Your task to perform on an android device: toggle notifications settings in the gmail app Image 0: 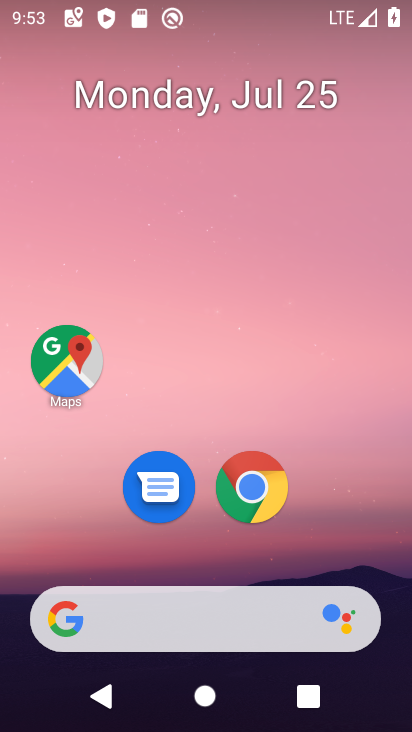
Step 0: drag from (194, 564) to (284, 3)
Your task to perform on an android device: toggle notifications settings in the gmail app Image 1: 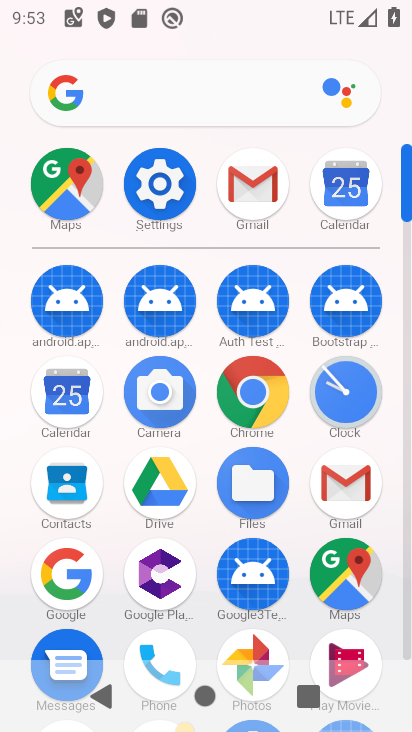
Step 1: click (243, 192)
Your task to perform on an android device: toggle notifications settings in the gmail app Image 2: 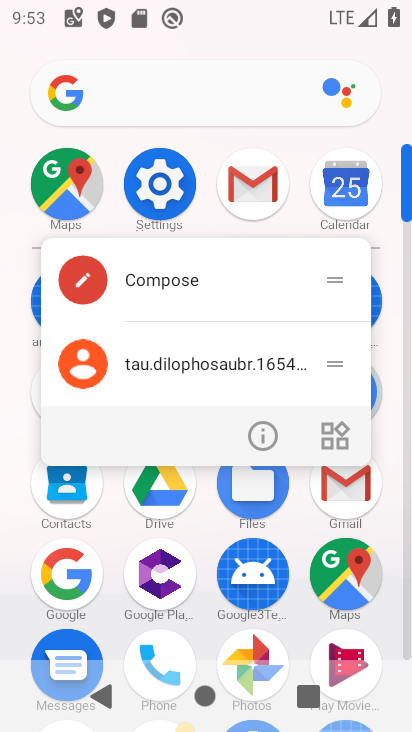
Step 2: click (260, 421)
Your task to perform on an android device: toggle notifications settings in the gmail app Image 3: 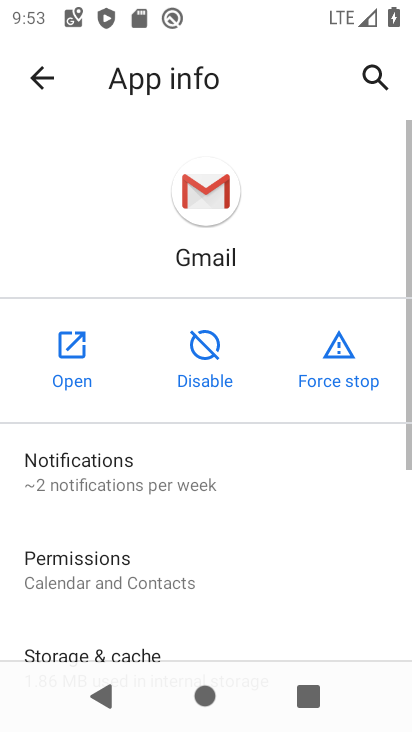
Step 3: click (176, 460)
Your task to perform on an android device: toggle notifications settings in the gmail app Image 4: 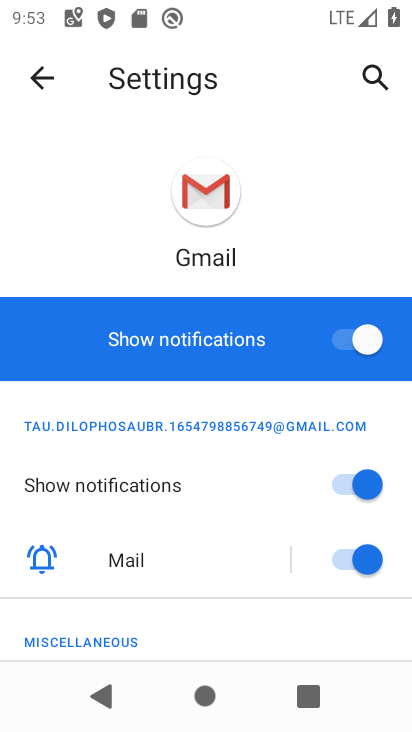
Step 4: click (359, 333)
Your task to perform on an android device: toggle notifications settings in the gmail app Image 5: 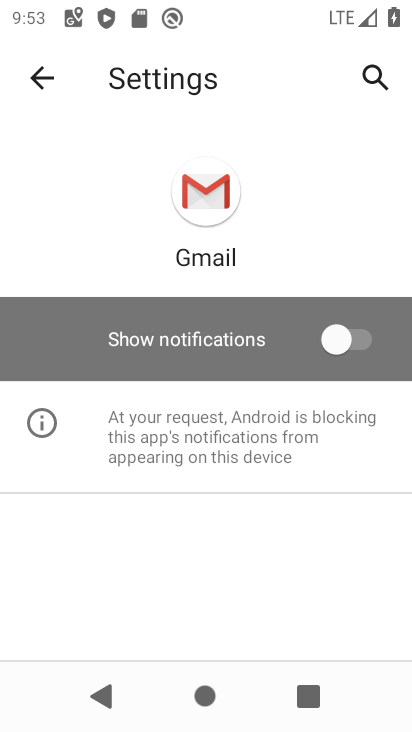
Step 5: task complete